Your task to perform on an android device: turn on sleep mode Image 0: 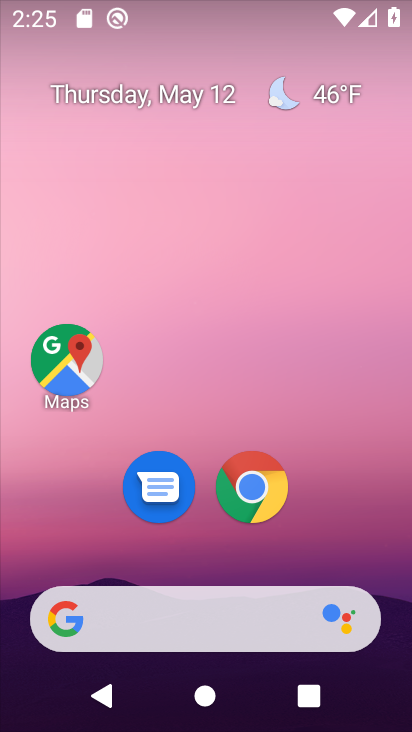
Step 0: drag from (269, 555) to (379, 350)
Your task to perform on an android device: turn on sleep mode Image 1: 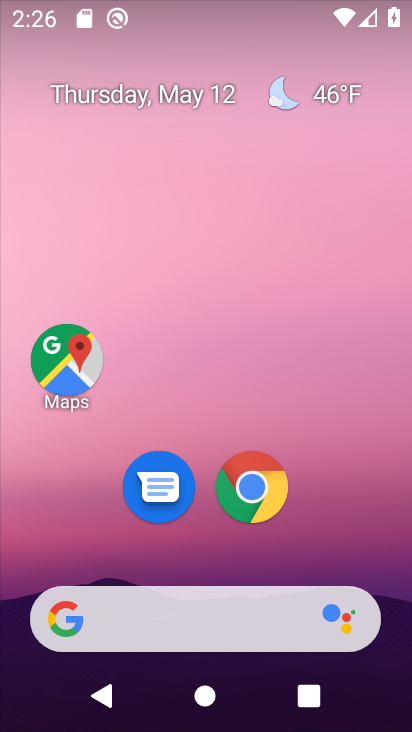
Step 1: drag from (230, 522) to (228, 2)
Your task to perform on an android device: turn on sleep mode Image 2: 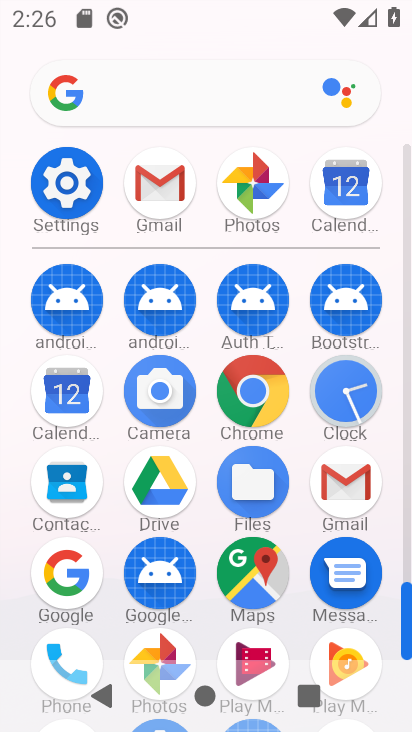
Step 2: click (80, 187)
Your task to perform on an android device: turn on sleep mode Image 3: 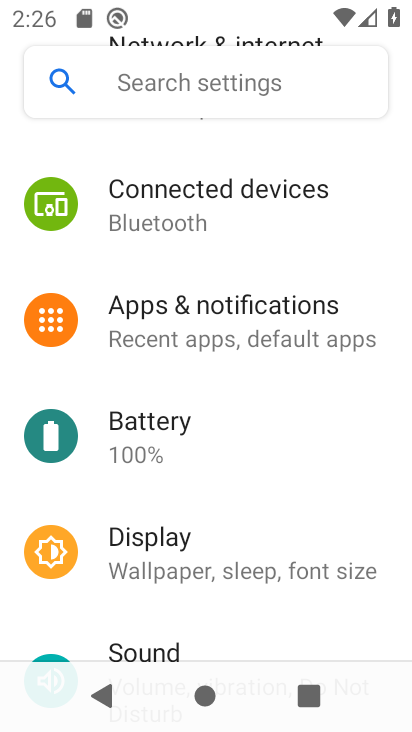
Step 3: click (175, 544)
Your task to perform on an android device: turn on sleep mode Image 4: 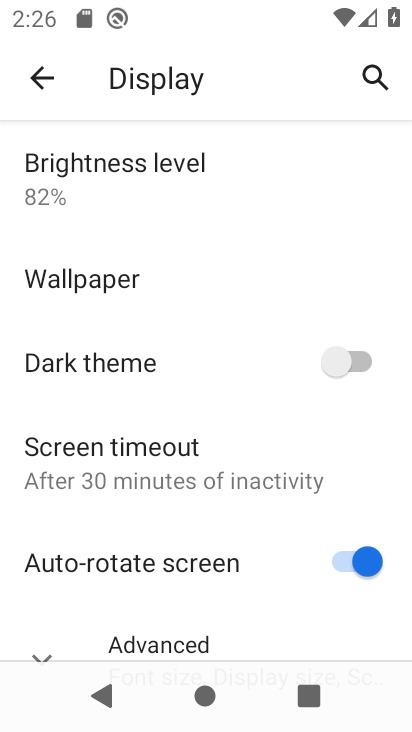
Step 4: drag from (176, 590) to (240, 152)
Your task to perform on an android device: turn on sleep mode Image 5: 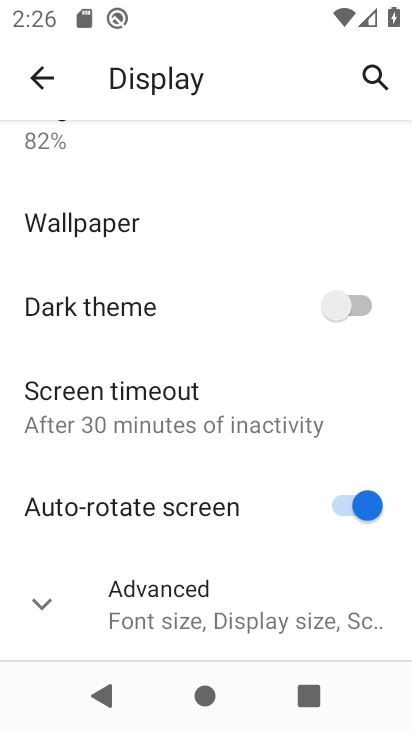
Step 5: click (222, 607)
Your task to perform on an android device: turn on sleep mode Image 6: 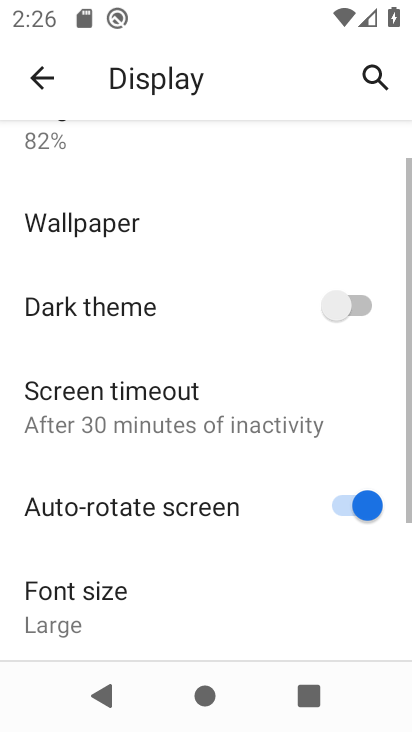
Step 6: task complete